Your task to perform on an android device: Open calendar and show me the fourth week of next month Image 0: 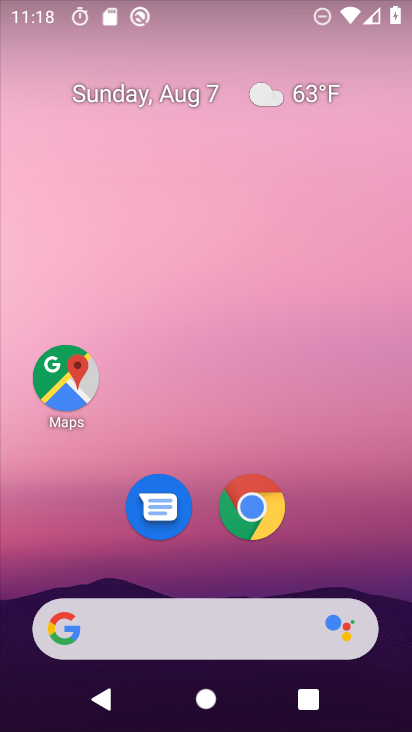
Step 0: drag from (368, 576) to (333, 80)
Your task to perform on an android device: Open calendar and show me the fourth week of next month Image 1: 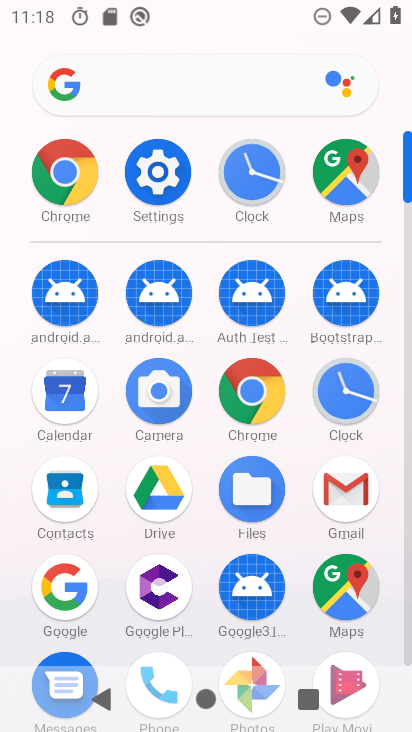
Step 1: click (61, 403)
Your task to perform on an android device: Open calendar and show me the fourth week of next month Image 2: 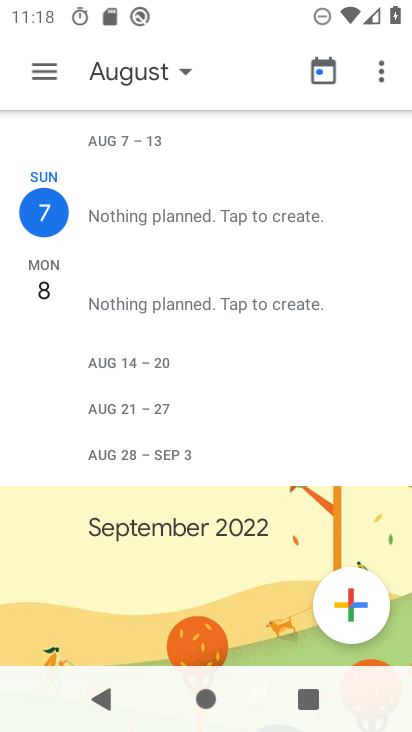
Step 2: click (107, 74)
Your task to perform on an android device: Open calendar and show me the fourth week of next month Image 3: 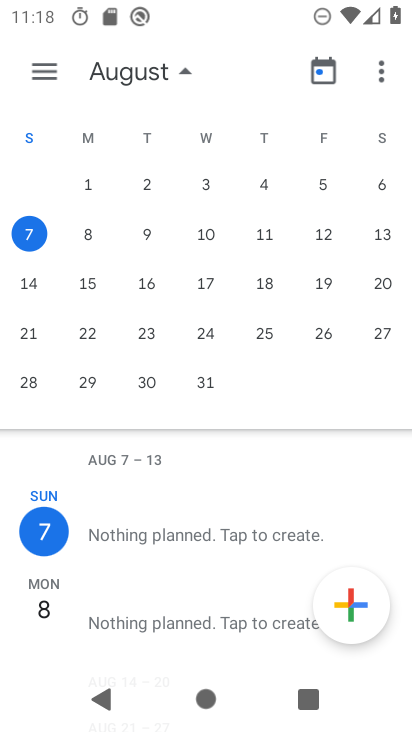
Step 3: drag from (407, 326) to (25, 362)
Your task to perform on an android device: Open calendar and show me the fourth week of next month Image 4: 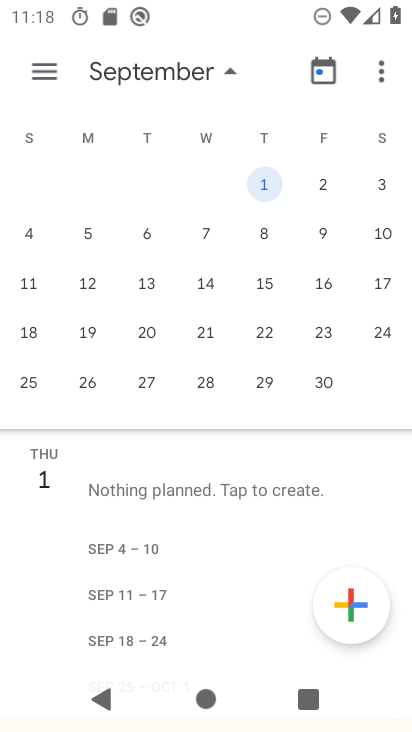
Step 4: click (87, 383)
Your task to perform on an android device: Open calendar and show me the fourth week of next month Image 5: 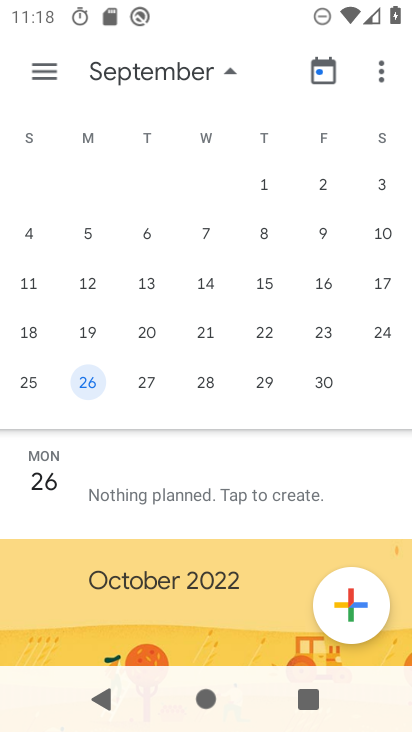
Step 5: click (49, 72)
Your task to perform on an android device: Open calendar and show me the fourth week of next month Image 6: 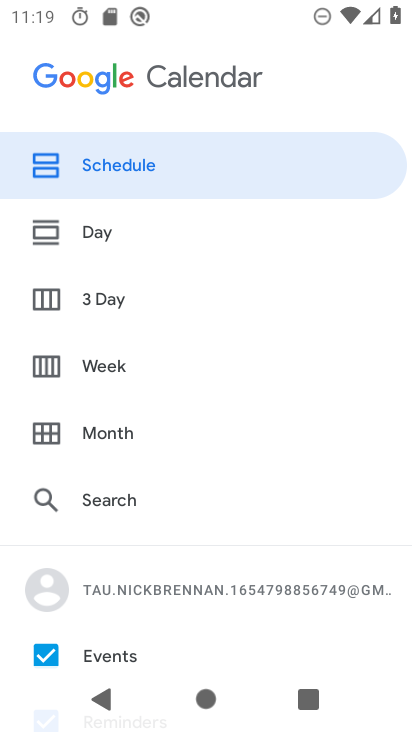
Step 6: click (94, 362)
Your task to perform on an android device: Open calendar and show me the fourth week of next month Image 7: 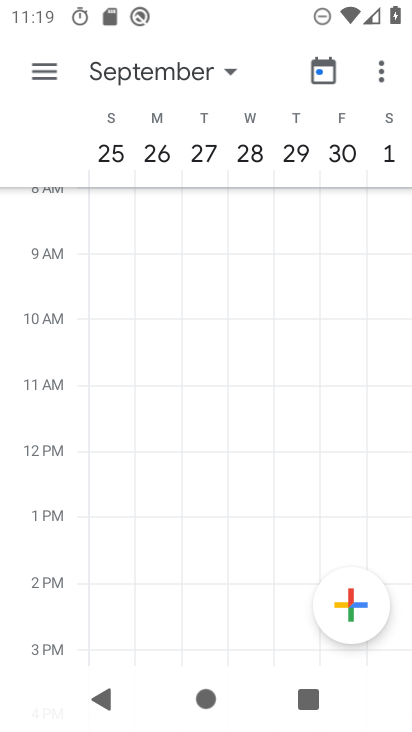
Step 7: task complete